Your task to perform on an android device: Open Chrome and go to the settings page Image 0: 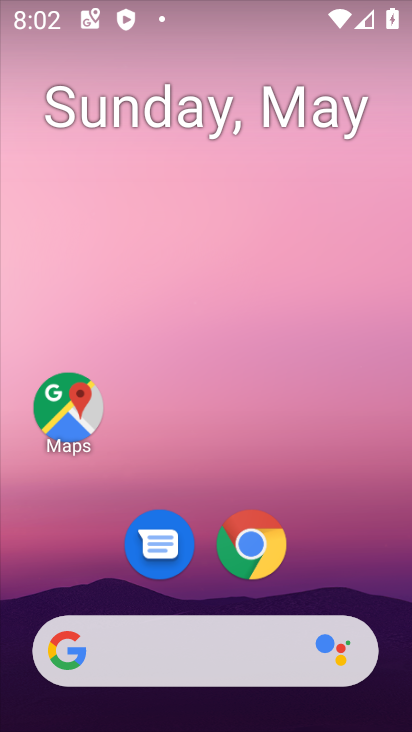
Step 0: drag from (305, 358) to (264, 62)
Your task to perform on an android device: Open Chrome and go to the settings page Image 1: 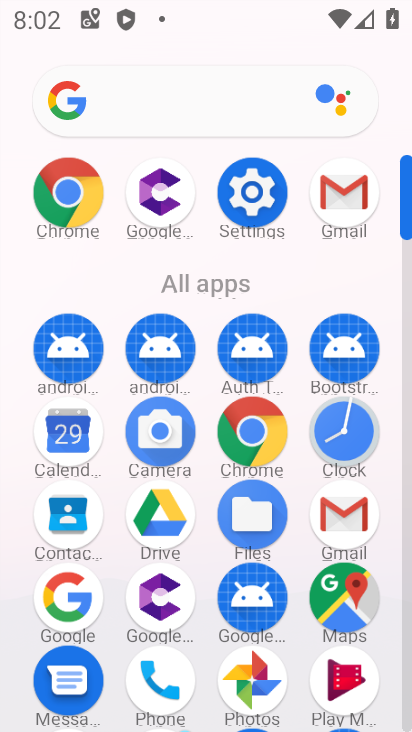
Step 1: drag from (7, 477) to (8, 229)
Your task to perform on an android device: Open Chrome and go to the settings page Image 2: 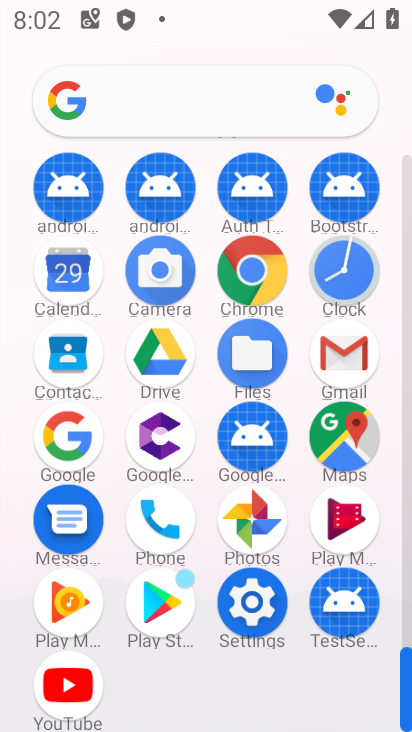
Step 2: click (250, 263)
Your task to perform on an android device: Open Chrome and go to the settings page Image 3: 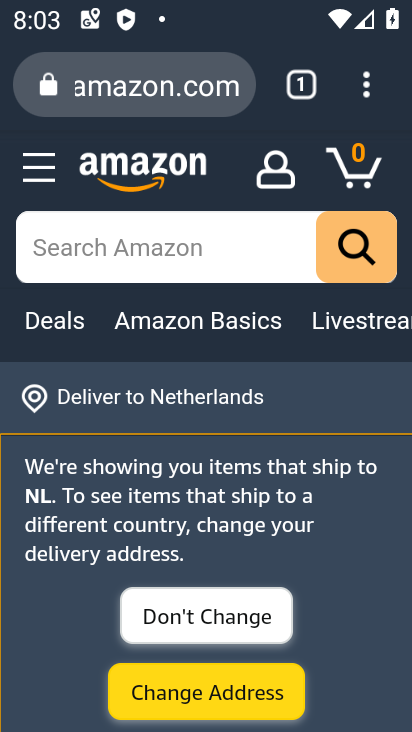
Step 3: task complete